Your task to perform on an android device: allow cookies in the chrome app Image 0: 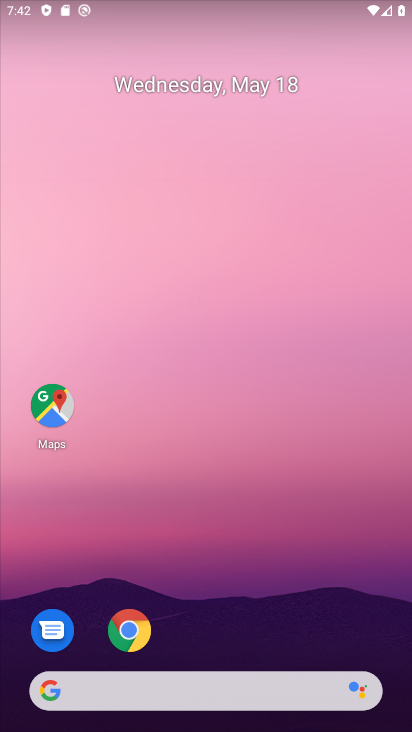
Step 0: click (129, 629)
Your task to perform on an android device: allow cookies in the chrome app Image 1: 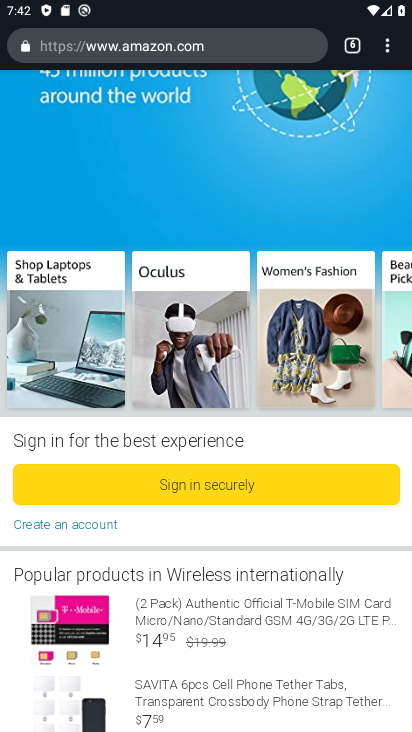
Step 1: click (387, 46)
Your task to perform on an android device: allow cookies in the chrome app Image 2: 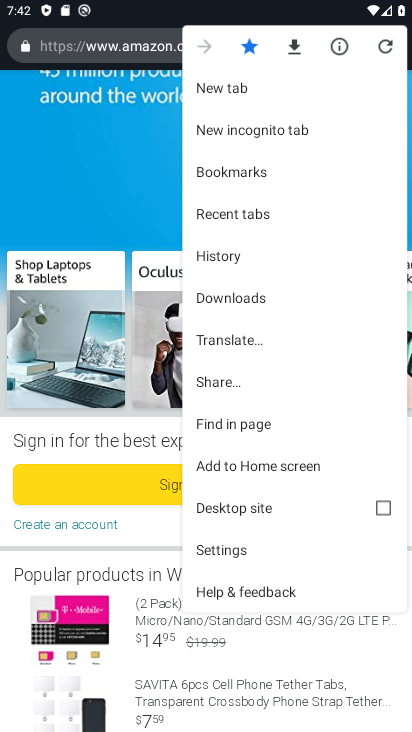
Step 2: click (231, 553)
Your task to perform on an android device: allow cookies in the chrome app Image 3: 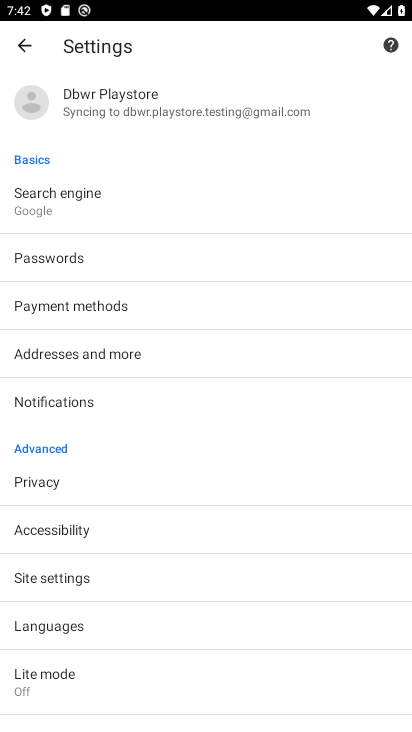
Step 3: click (75, 574)
Your task to perform on an android device: allow cookies in the chrome app Image 4: 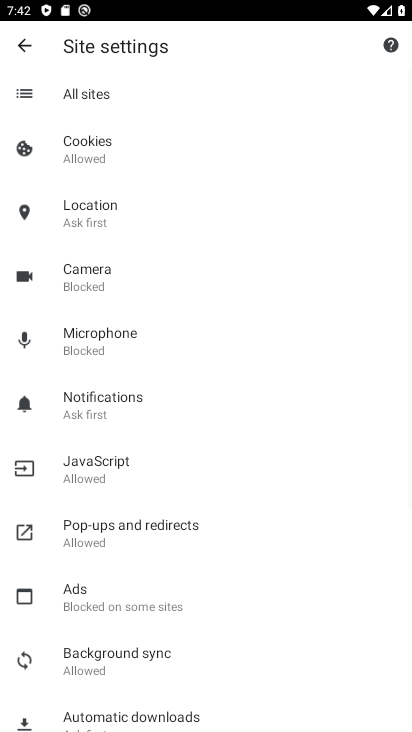
Step 4: click (93, 137)
Your task to perform on an android device: allow cookies in the chrome app Image 5: 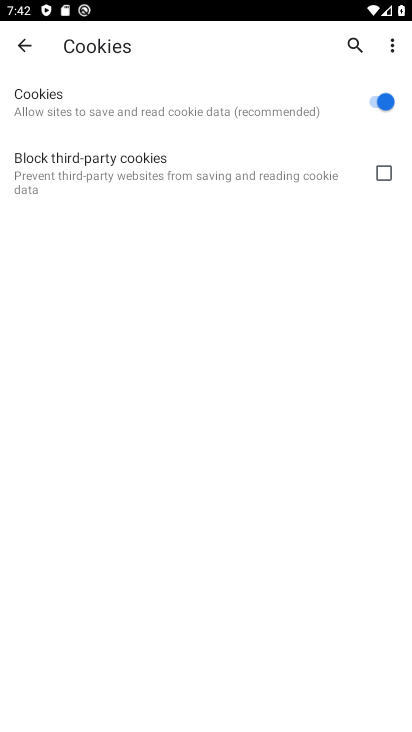
Step 5: task complete